Your task to perform on an android device: turn on wifi Image 0: 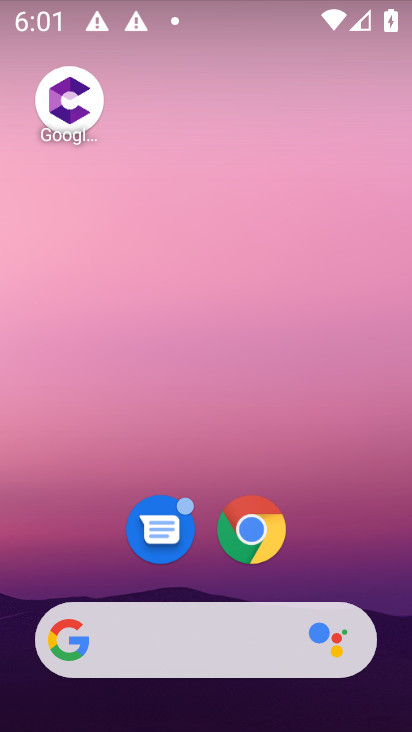
Step 0: drag from (193, 295) to (193, 93)
Your task to perform on an android device: turn on wifi Image 1: 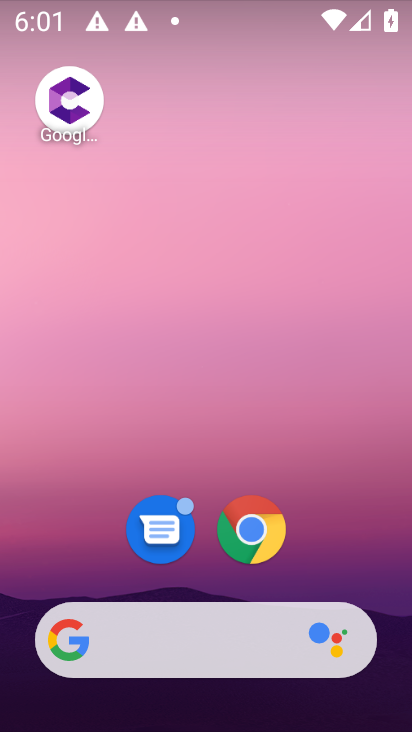
Step 1: drag from (204, 575) to (226, 150)
Your task to perform on an android device: turn on wifi Image 2: 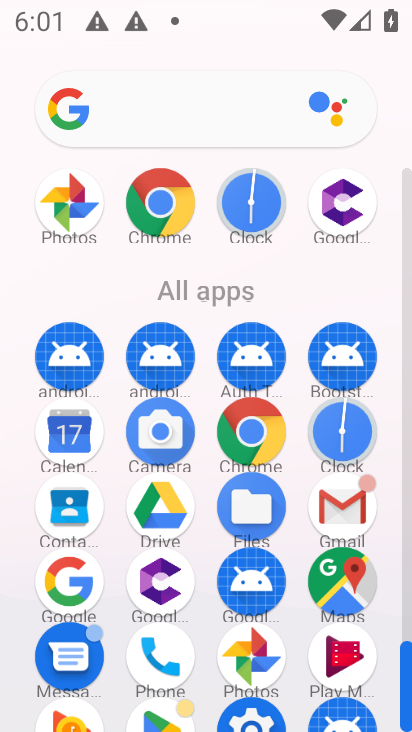
Step 2: drag from (205, 484) to (209, 292)
Your task to perform on an android device: turn on wifi Image 3: 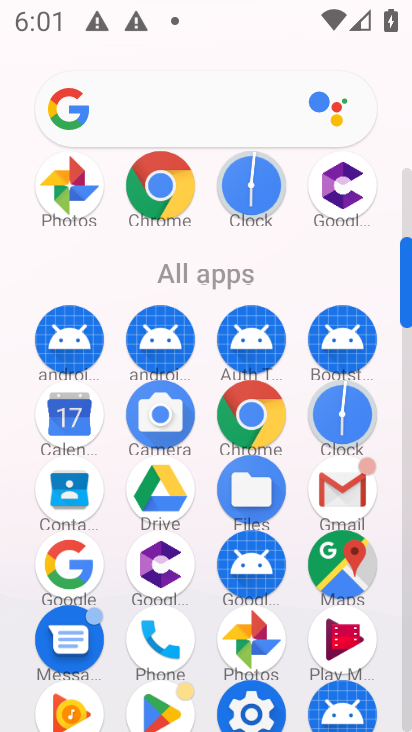
Step 3: click (251, 703)
Your task to perform on an android device: turn on wifi Image 4: 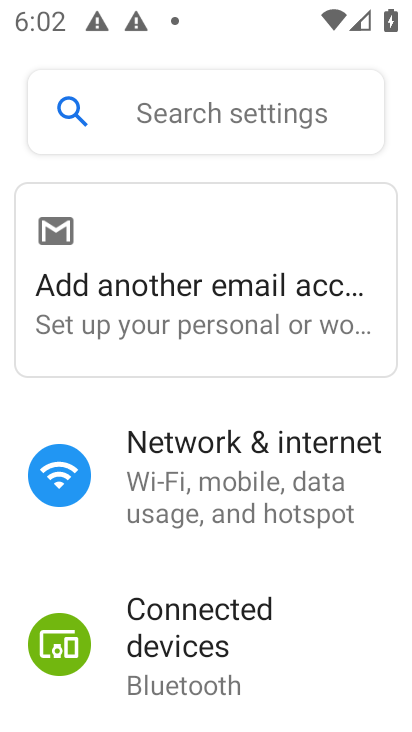
Step 4: click (218, 500)
Your task to perform on an android device: turn on wifi Image 5: 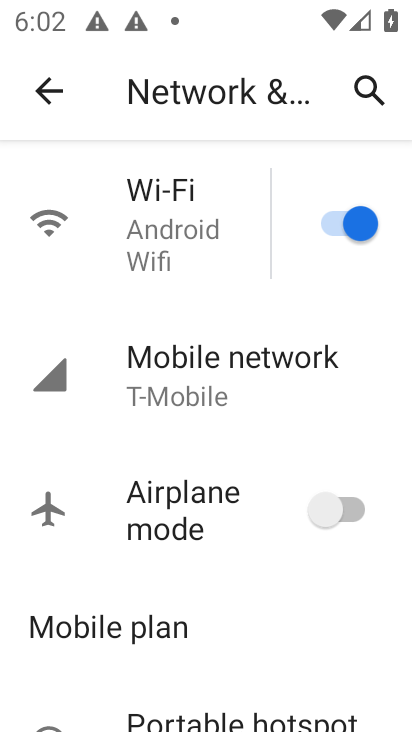
Step 5: task complete